Your task to perform on an android device: Open Google Image 0: 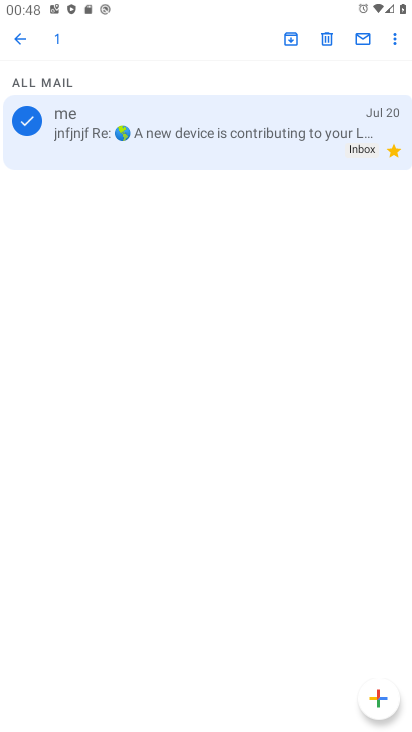
Step 0: press home button
Your task to perform on an android device: Open Google Image 1: 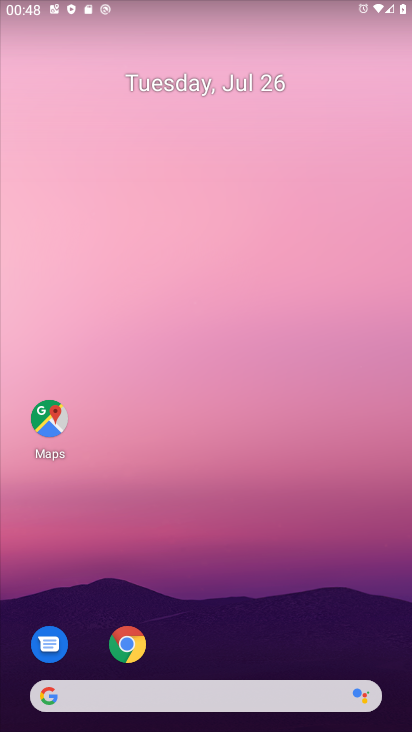
Step 1: drag from (217, 652) to (196, 10)
Your task to perform on an android device: Open Google Image 2: 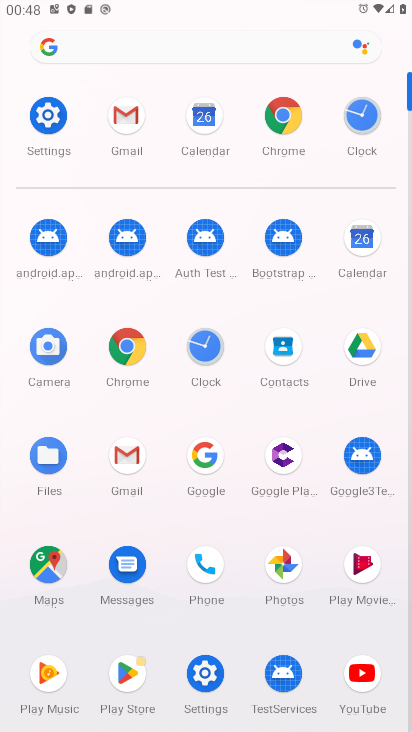
Step 2: drag from (218, 656) to (207, 422)
Your task to perform on an android device: Open Google Image 3: 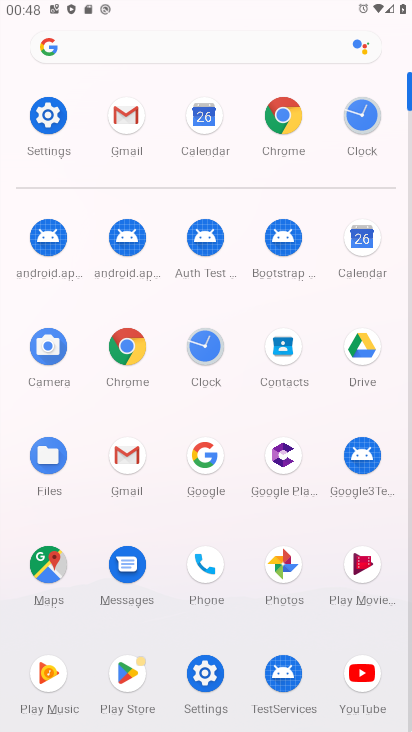
Step 3: click (208, 449)
Your task to perform on an android device: Open Google Image 4: 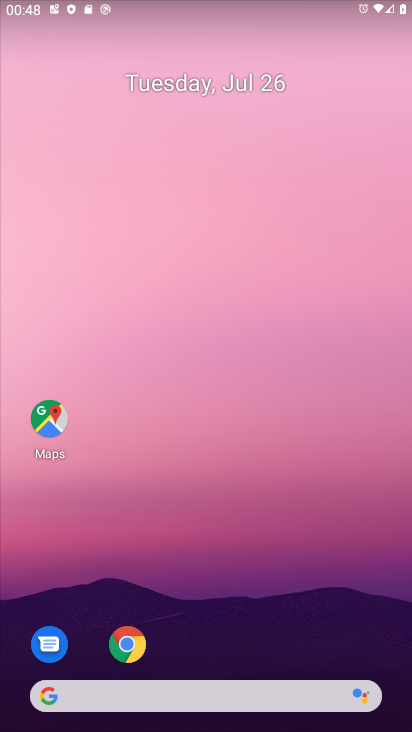
Step 4: click (208, 449)
Your task to perform on an android device: Open Google Image 5: 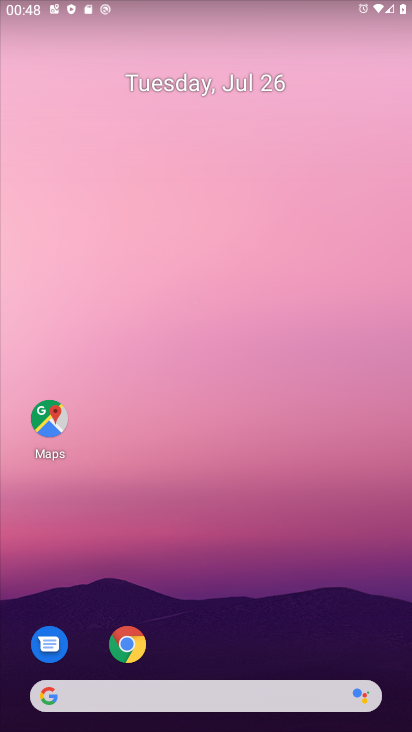
Step 5: drag from (193, 637) to (181, 183)
Your task to perform on an android device: Open Google Image 6: 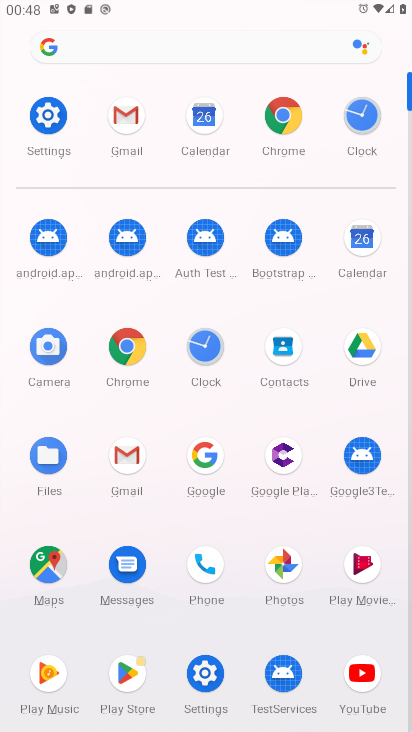
Step 6: click (200, 452)
Your task to perform on an android device: Open Google Image 7: 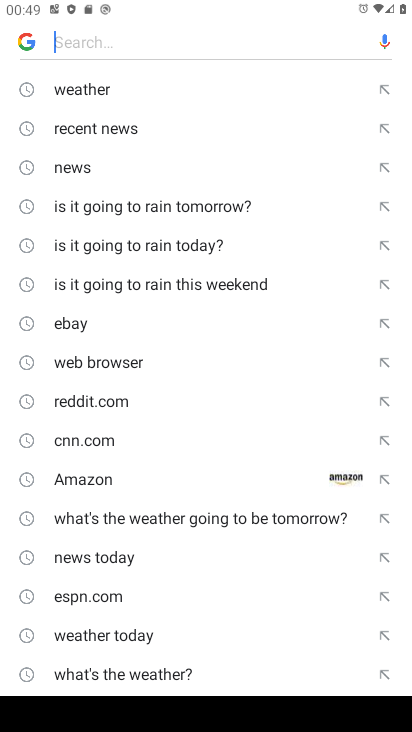
Step 7: task complete